Your task to perform on an android device: open sync settings in chrome Image 0: 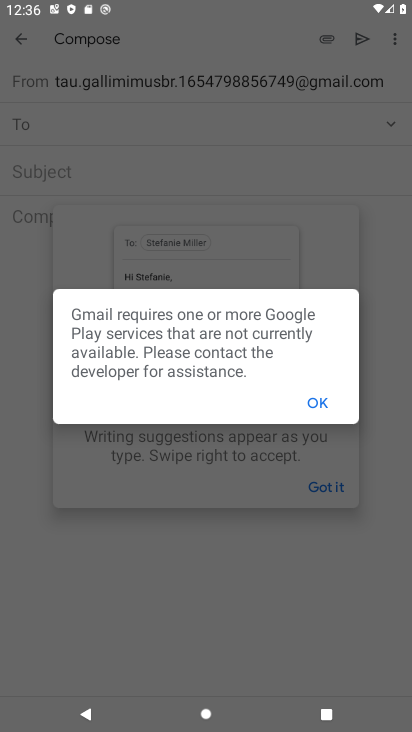
Step 0: press home button
Your task to perform on an android device: open sync settings in chrome Image 1: 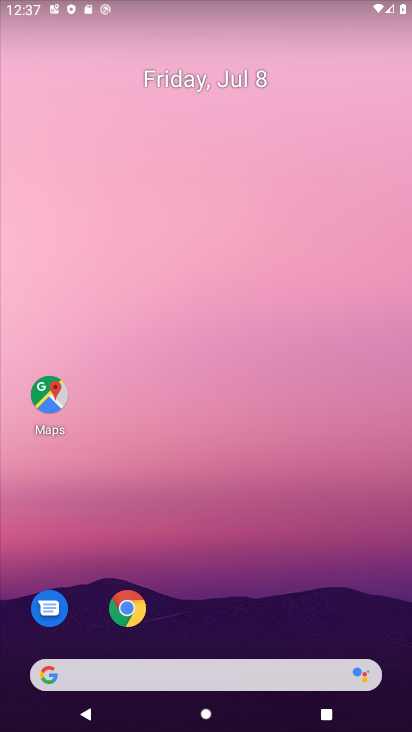
Step 1: click (196, 536)
Your task to perform on an android device: open sync settings in chrome Image 2: 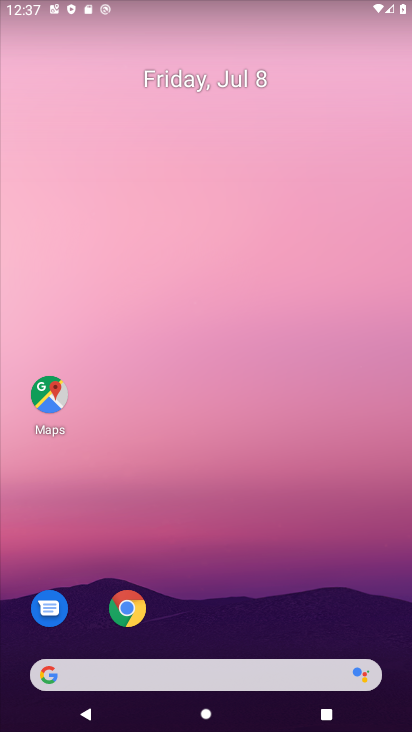
Step 2: click (126, 608)
Your task to perform on an android device: open sync settings in chrome Image 3: 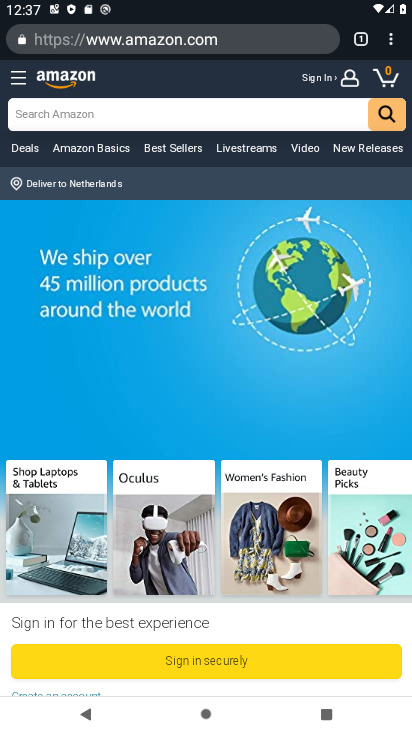
Step 3: click (392, 42)
Your task to perform on an android device: open sync settings in chrome Image 4: 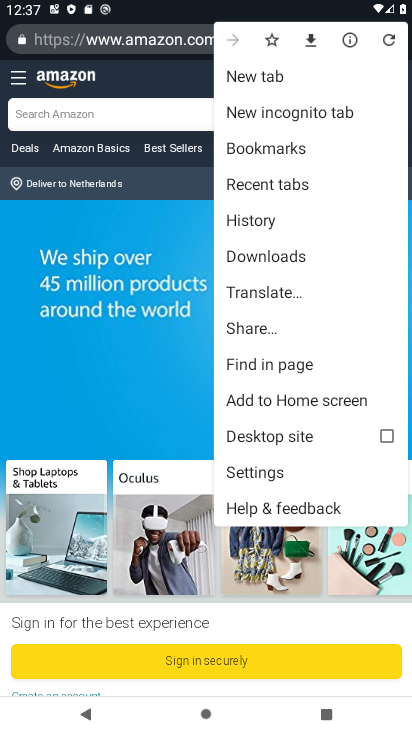
Step 4: click (283, 466)
Your task to perform on an android device: open sync settings in chrome Image 5: 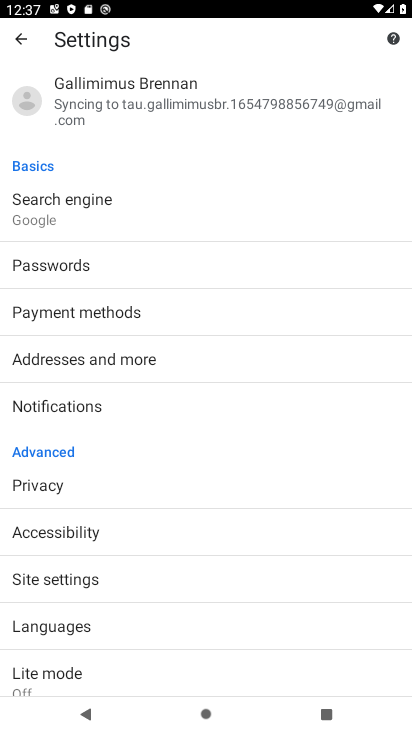
Step 5: click (294, 128)
Your task to perform on an android device: open sync settings in chrome Image 6: 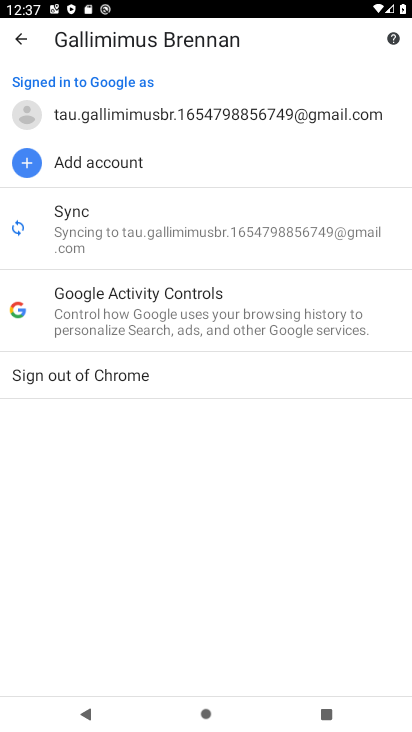
Step 6: task complete